Your task to perform on an android device: Go to Wikipedia Image 0: 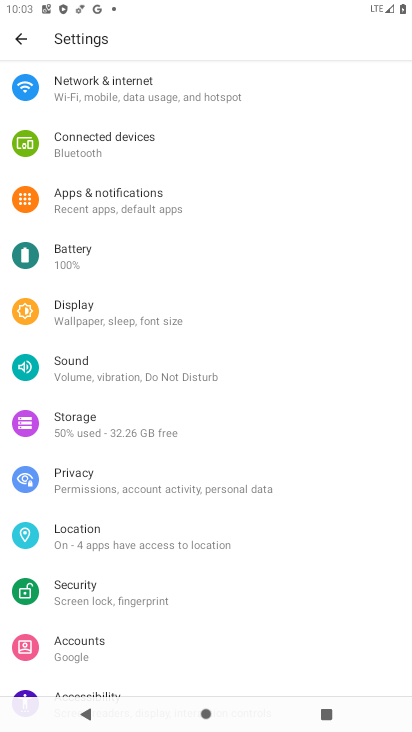
Step 0: press home button
Your task to perform on an android device: Go to Wikipedia Image 1: 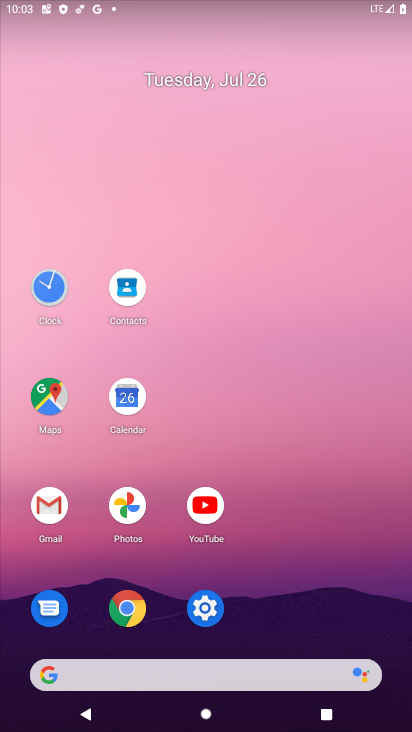
Step 1: click (124, 603)
Your task to perform on an android device: Go to Wikipedia Image 2: 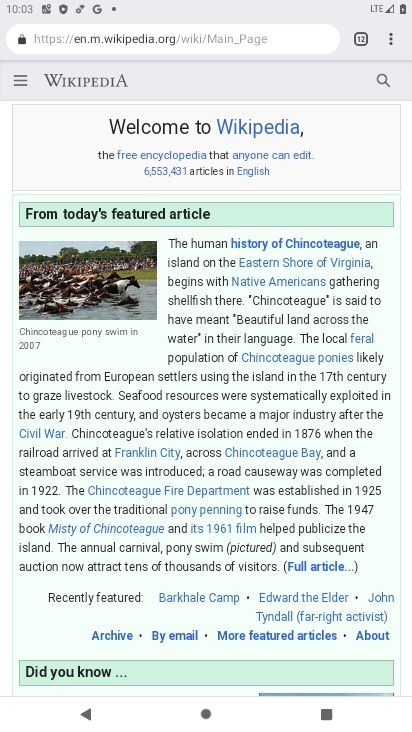
Step 2: task complete